Your task to perform on an android device: Go to network settings Image 0: 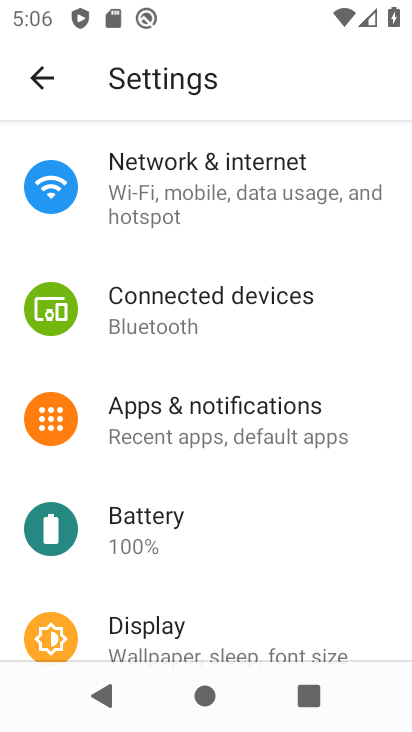
Step 0: click (238, 181)
Your task to perform on an android device: Go to network settings Image 1: 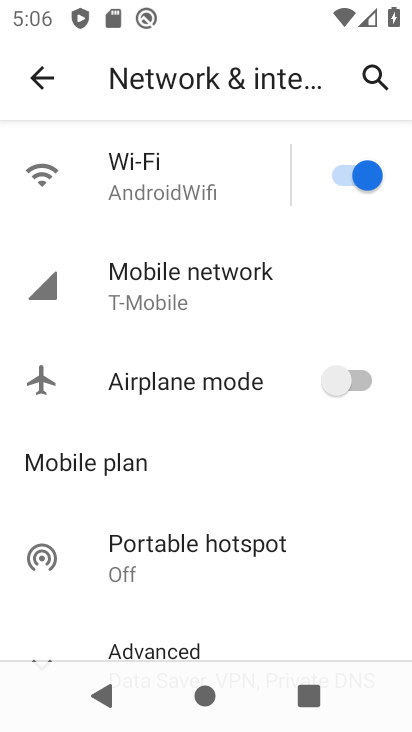
Step 1: task complete